Your task to perform on an android device: turn on javascript in the chrome app Image 0: 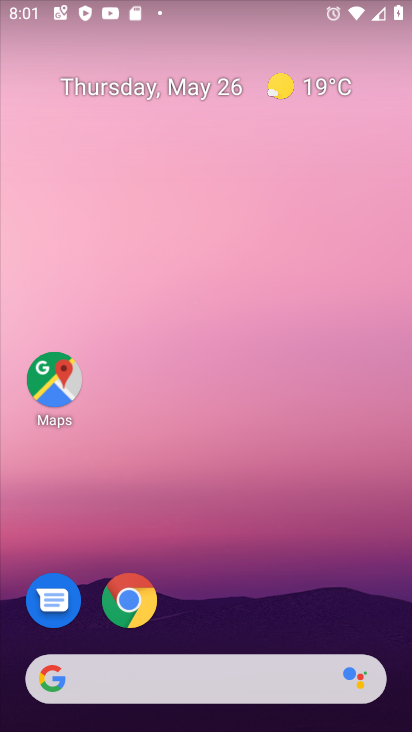
Step 0: press home button
Your task to perform on an android device: turn on javascript in the chrome app Image 1: 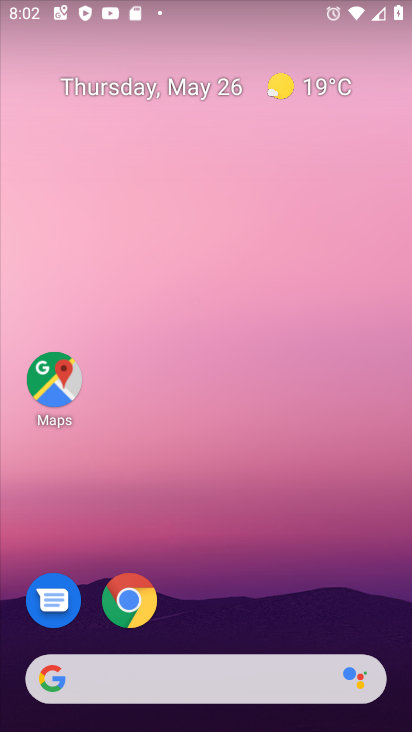
Step 1: press home button
Your task to perform on an android device: turn on javascript in the chrome app Image 2: 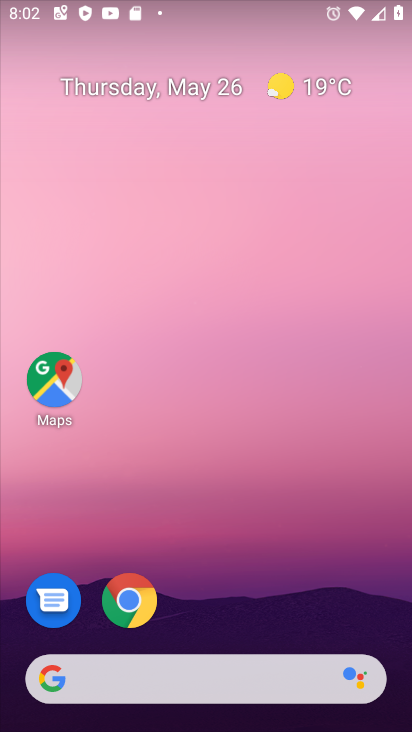
Step 2: click (134, 609)
Your task to perform on an android device: turn on javascript in the chrome app Image 3: 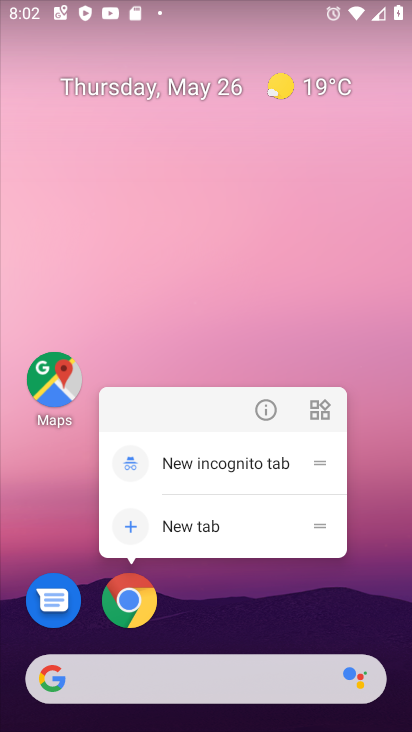
Step 3: click (262, 609)
Your task to perform on an android device: turn on javascript in the chrome app Image 4: 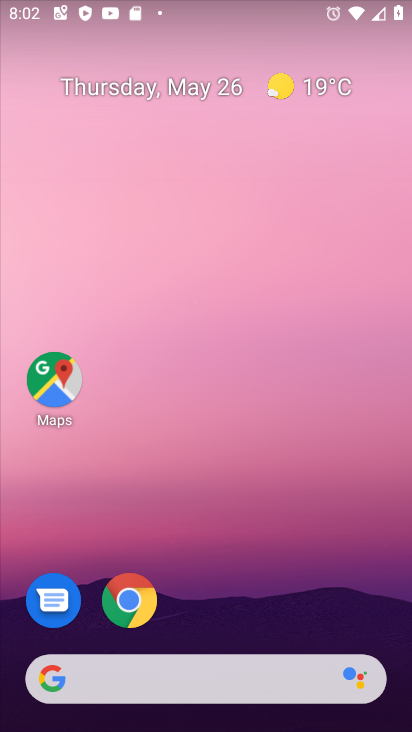
Step 4: drag from (297, 625) to (278, 177)
Your task to perform on an android device: turn on javascript in the chrome app Image 5: 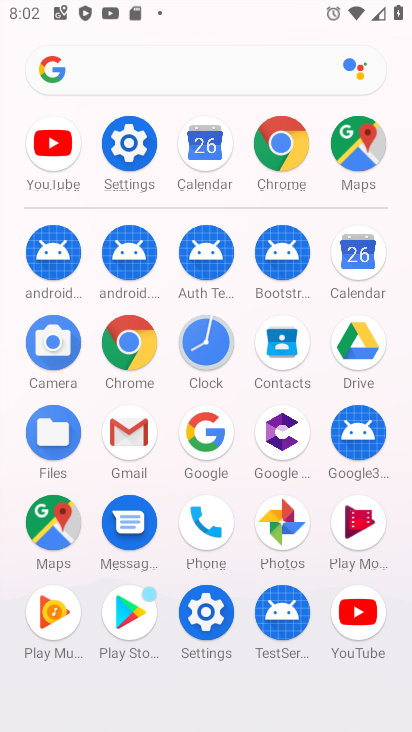
Step 5: click (139, 364)
Your task to perform on an android device: turn on javascript in the chrome app Image 6: 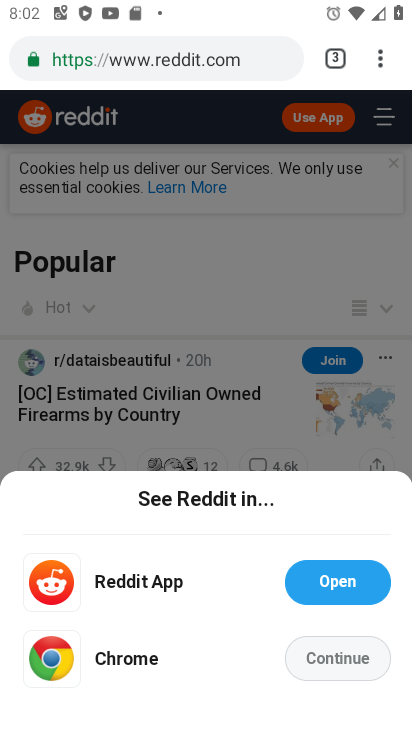
Step 6: drag from (380, 59) to (189, 632)
Your task to perform on an android device: turn on javascript in the chrome app Image 7: 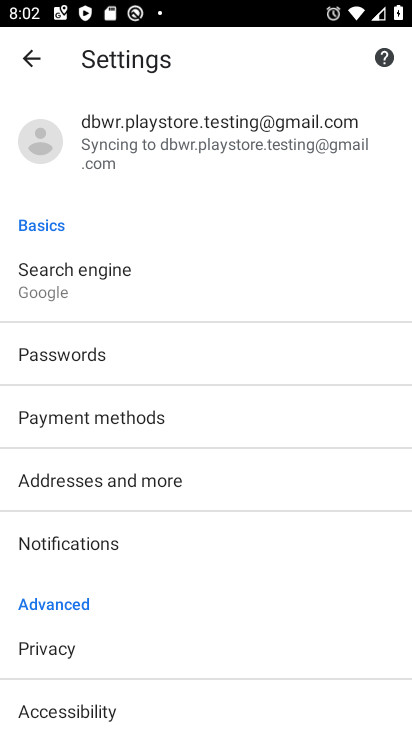
Step 7: drag from (212, 631) to (250, 336)
Your task to perform on an android device: turn on javascript in the chrome app Image 8: 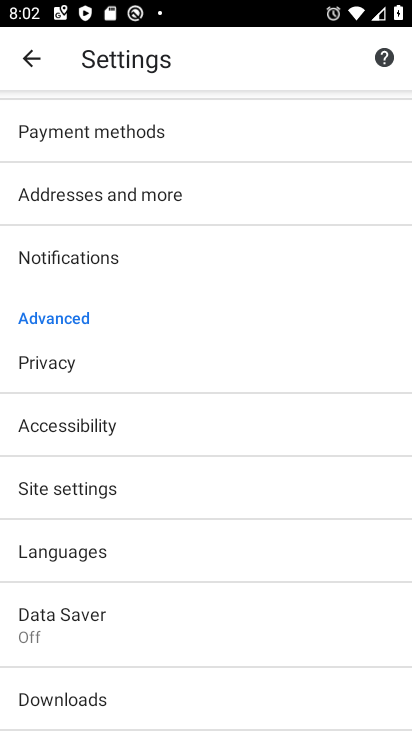
Step 8: click (69, 494)
Your task to perform on an android device: turn on javascript in the chrome app Image 9: 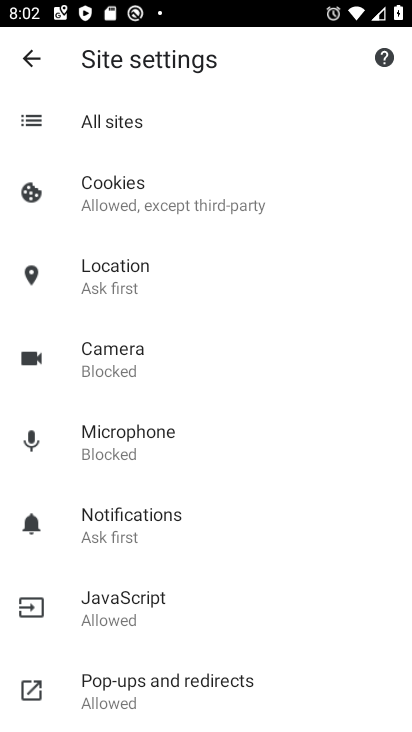
Step 9: click (117, 601)
Your task to perform on an android device: turn on javascript in the chrome app Image 10: 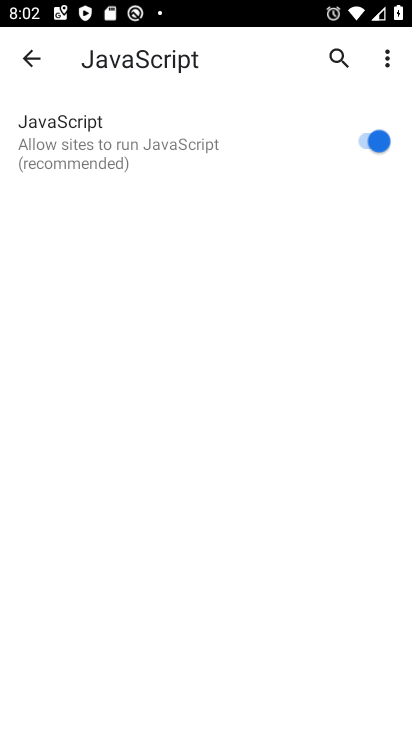
Step 10: task complete